Your task to perform on an android device: Open calendar and show me the second week of next month Image 0: 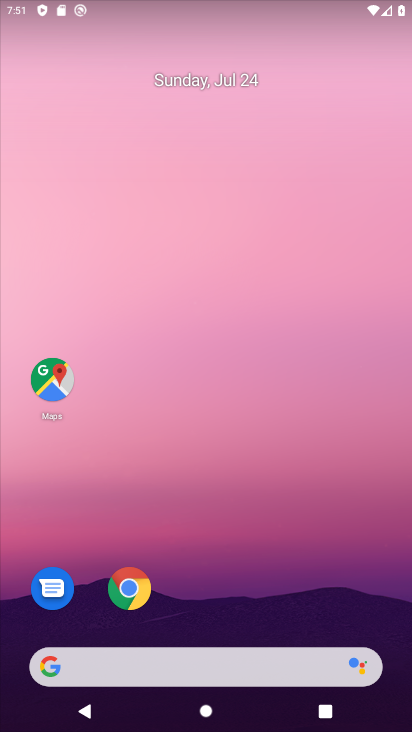
Step 0: drag from (249, 216) to (239, 95)
Your task to perform on an android device: Open calendar and show me the second week of next month Image 1: 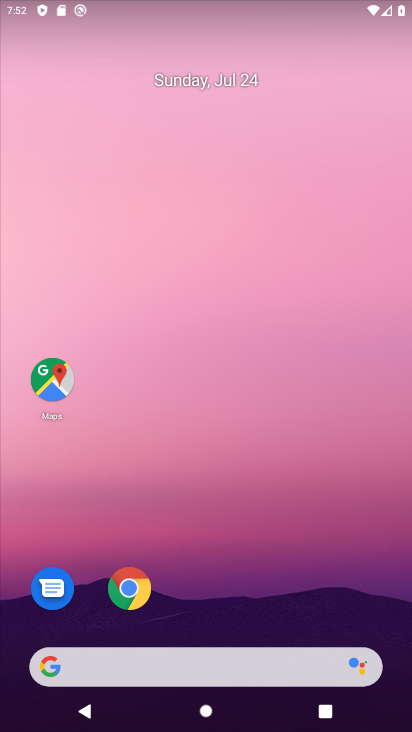
Step 1: drag from (279, 603) to (411, 18)
Your task to perform on an android device: Open calendar and show me the second week of next month Image 2: 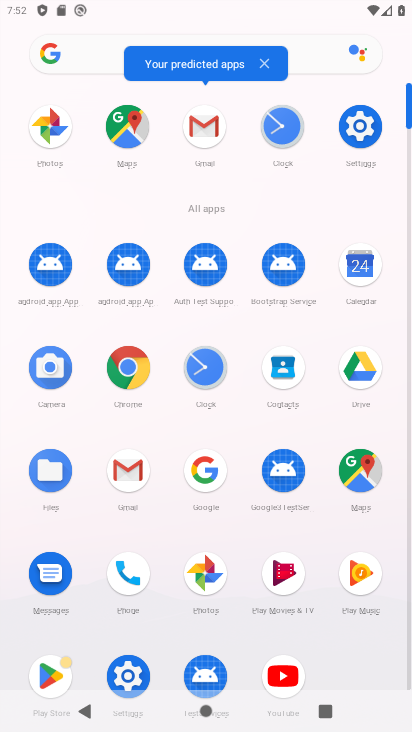
Step 2: click (367, 277)
Your task to perform on an android device: Open calendar and show me the second week of next month Image 3: 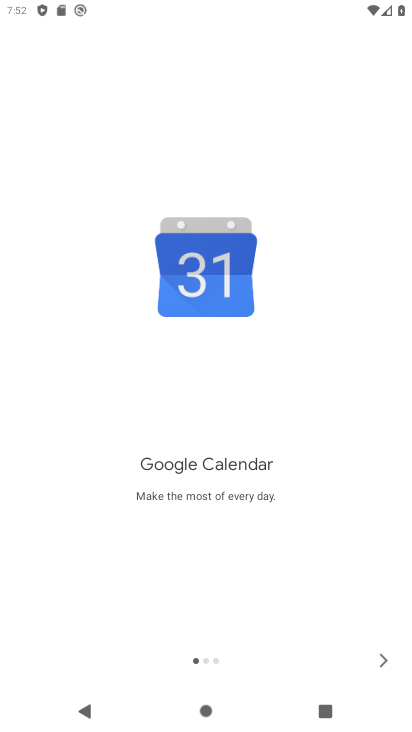
Step 3: click (386, 651)
Your task to perform on an android device: Open calendar and show me the second week of next month Image 4: 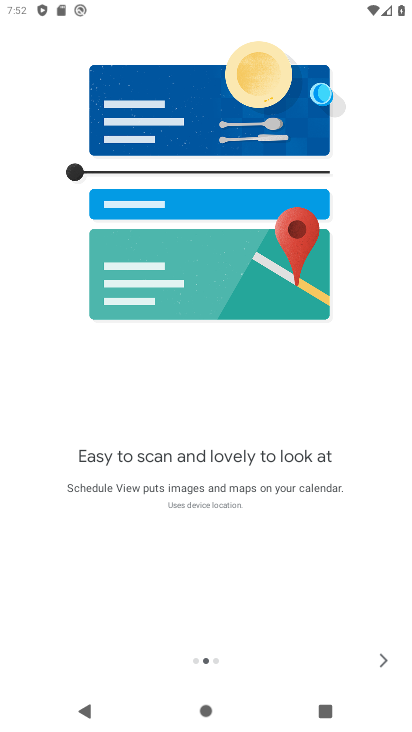
Step 4: click (386, 651)
Your task to perform on an android device: Open calendar and show me the second week of next month Image 5: 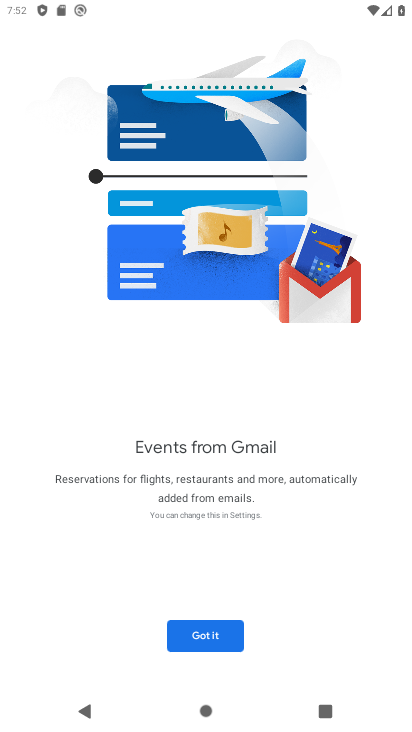
Step 5: click (206, 626)
Your task to perform on an android device: Open calendar and show me the second week of next month Image 6: 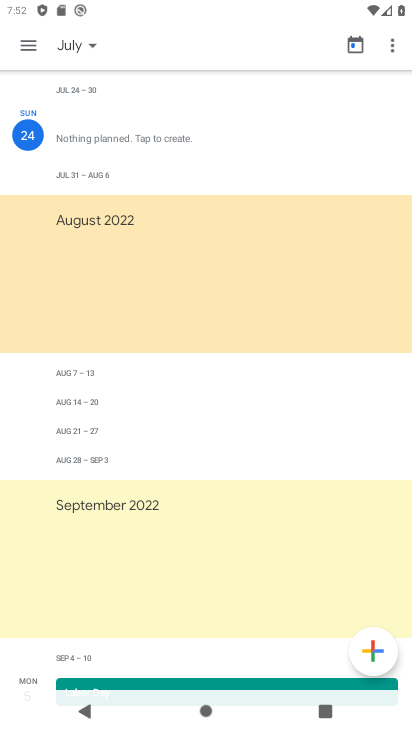
Step 6: click (85, 37)
Your task to perform on an android device: Open calendar and show me the second week of next month Image 7: 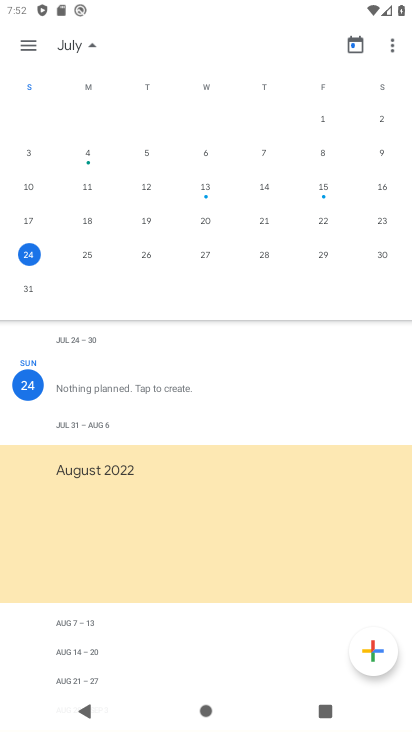
Step 7: drag from (403, 195) to (7, 183)
Your task to perform on an android device: Open calendar and show me the second week of next month Image 8: 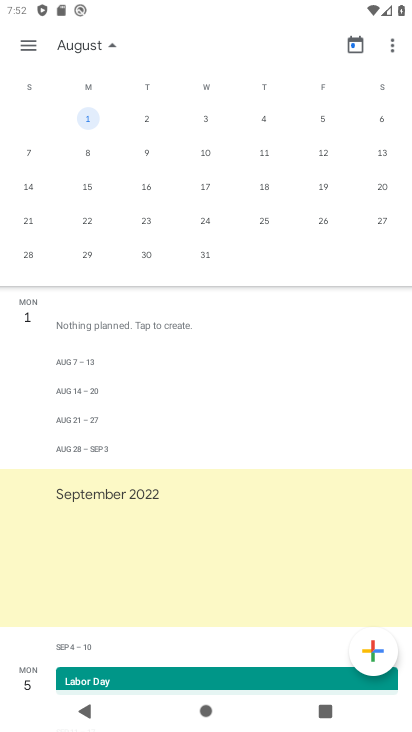
Step 8: click (27, 153)
Your task to perform on an android device: Open calendar and show me the second week of next month Image 9: 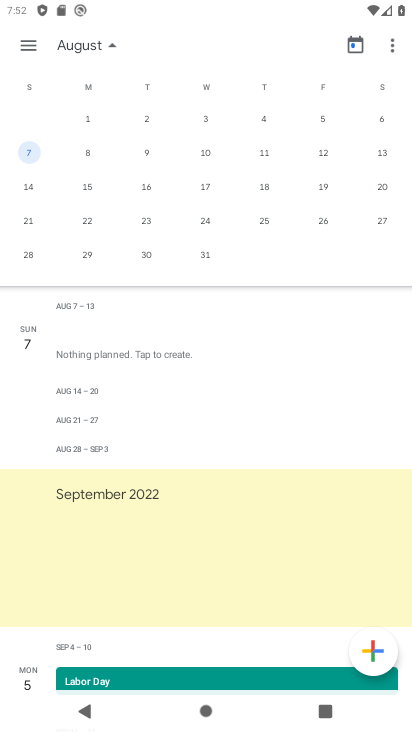
Step 9: task complete